Your task to perform on an android device: open sync settings in chrome Image 0: 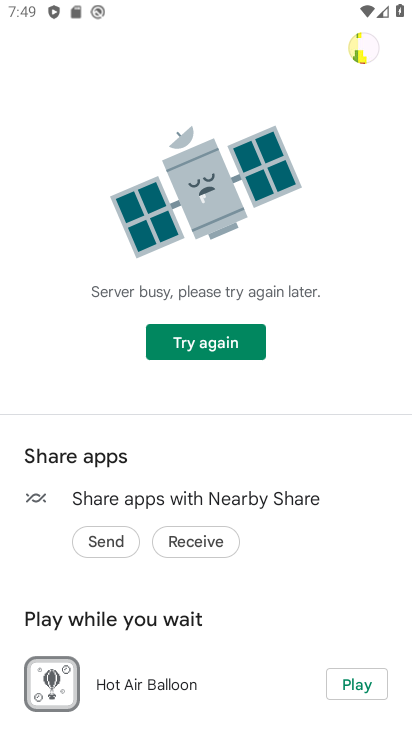
Step 0: press home button
Your task to perform on an android device: open sync settings in chrome Image 1: 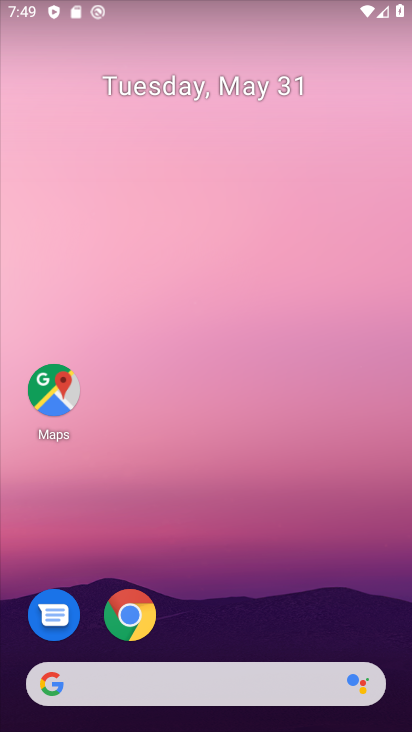
Step 1: click (129, 617)
Your task to perform on an android device: open sync settings in chrome Image 2: 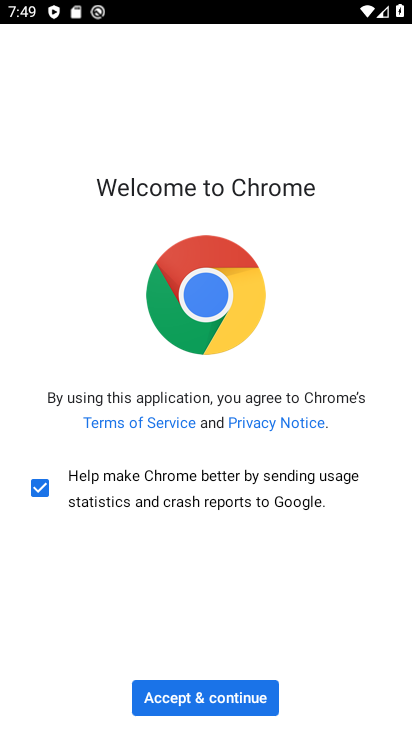
Step 2: click (180, 694)
Your task to perform on an android device: open sync settings in chrome Image 3: 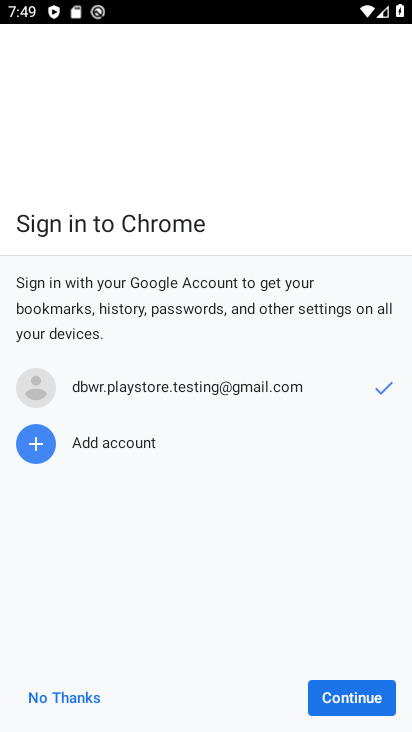
Step 3: click (366, 707)
Your task to perform on an android device: open sync settings in chrome Image 4: 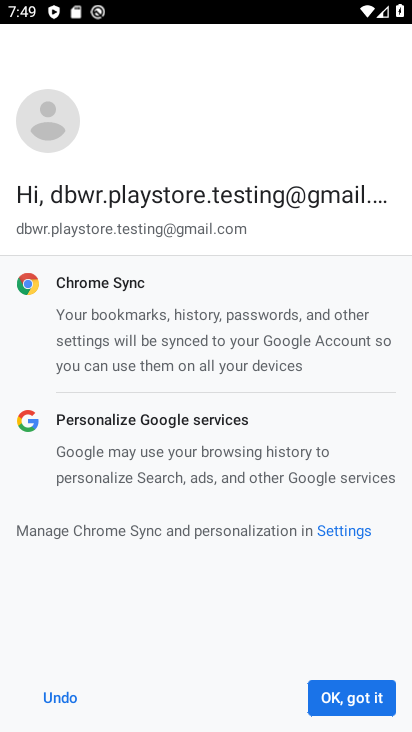
Step 4: click (332, 692)
Your task to perform on an android device: open sync settings in chrome Image 5: 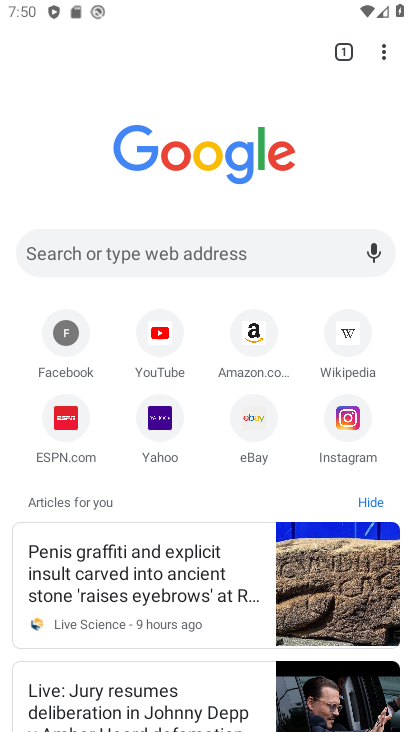
Step 5: click (389, 44)
Your task to perform on an android device: open sync settings in chrome Image 6: 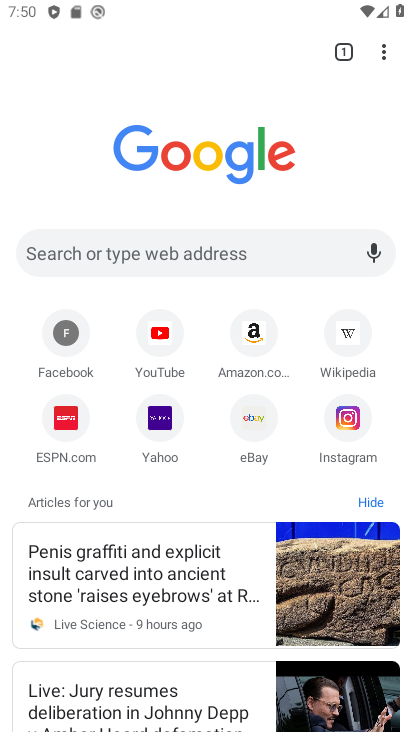
Step 6: click (377, 49)
Your task to perform on an android device: open sync settings in chrome Image 7: 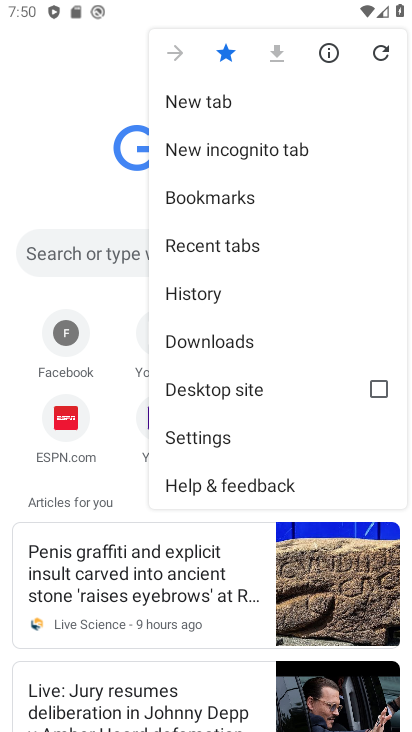
Step 7: click (228, 435)
Your task to perform on an android device: open sync settings in chrome Image 8: 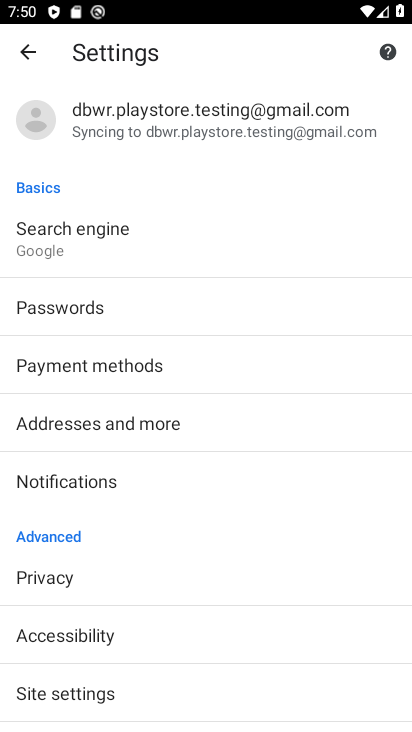
Step 8: click (122, 129)
Your task to perform on an android device: open sync settings in chrome Image 9: 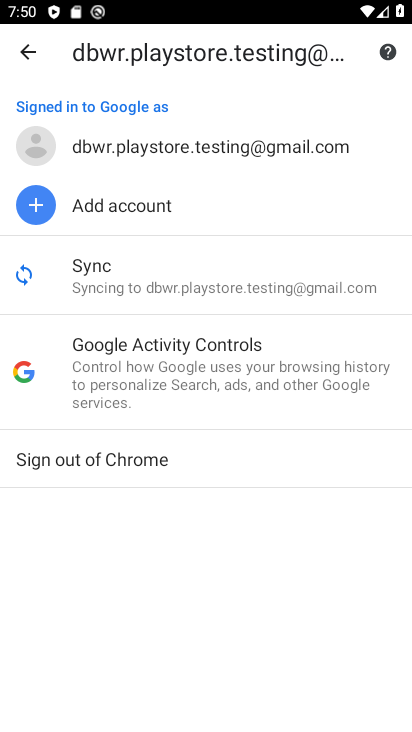
Step 9: click (217, 276)
Your task to perform on an android device: open sync settings in chrome Image 10: 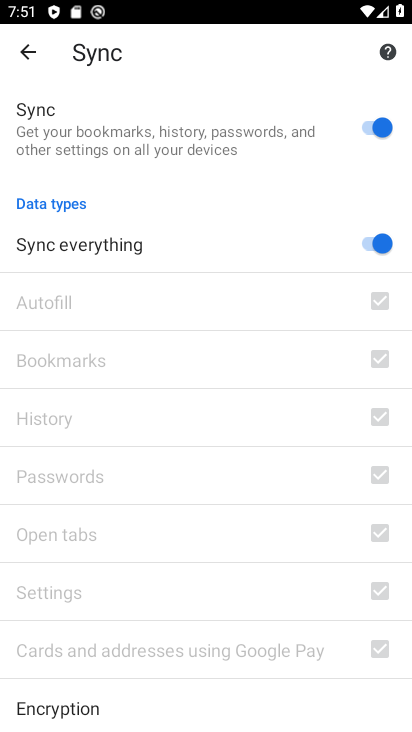
Step 10: task complete